Your task to perform on an android device: Open internet settings Image 0: 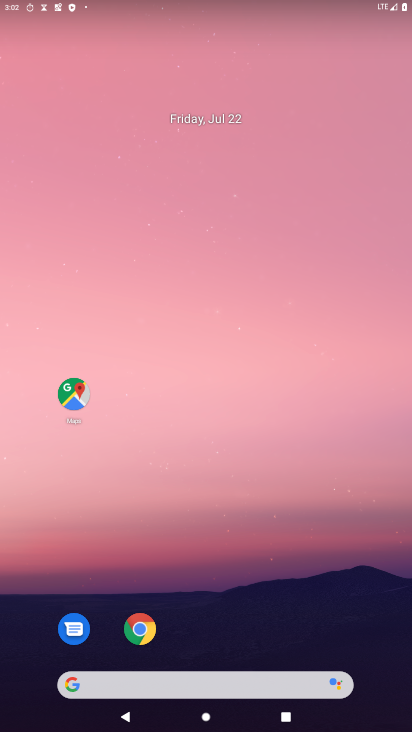
Step 0: drag from (112, 615) to (240, 2)
Your task to perform on an android device: Open internet settings Image 1: 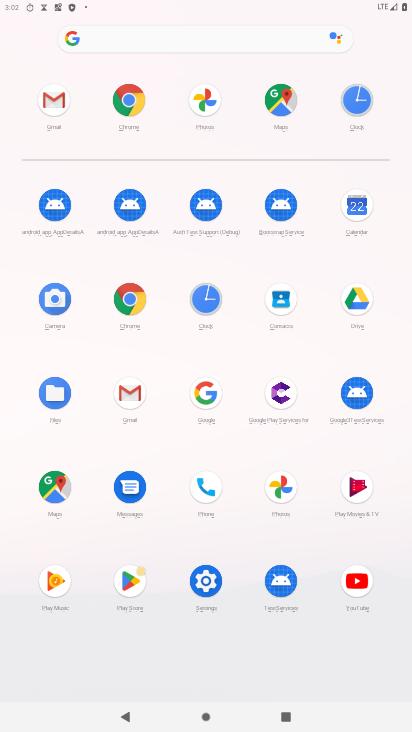
Step 1: click (195, 583)
Your task to perform on an android device: Open internet settings Image 2: 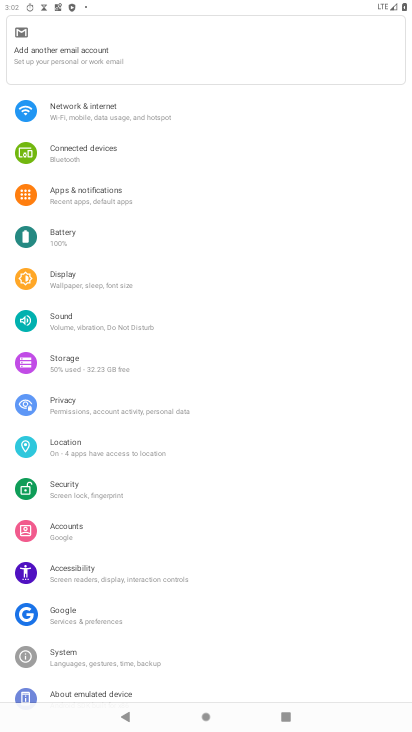
Step 2: click (94, 110)
Your task to perform on an android device: Open internet settings Image 3: 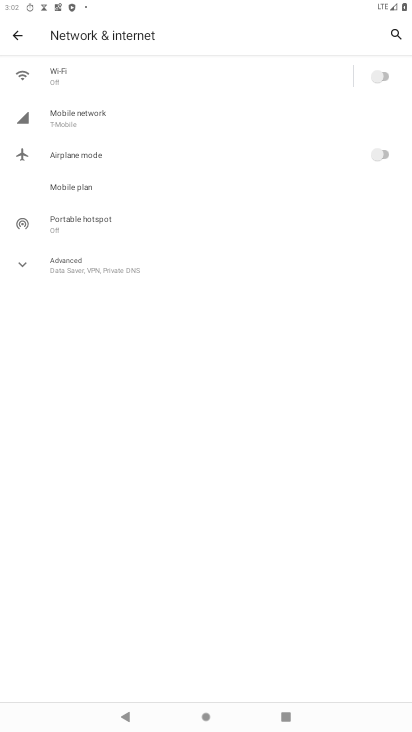
Step 3: task complete